Your task to perform on an android device: Open Maps and search for coffee Image 0: 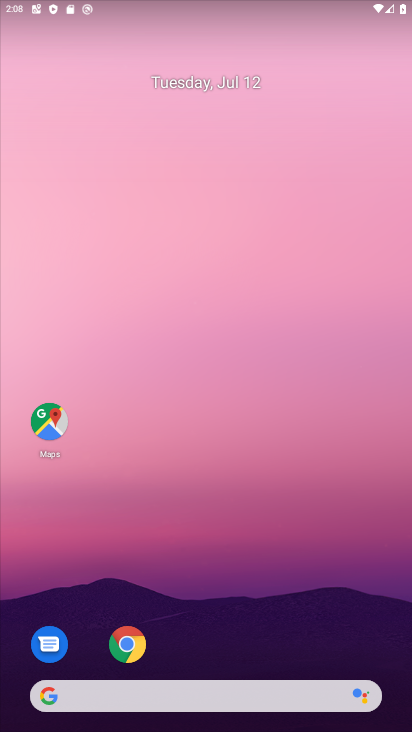
Step 0: click (171, 398)
Your task to perform on an android device: Open Maps and search for coffee Image 1: 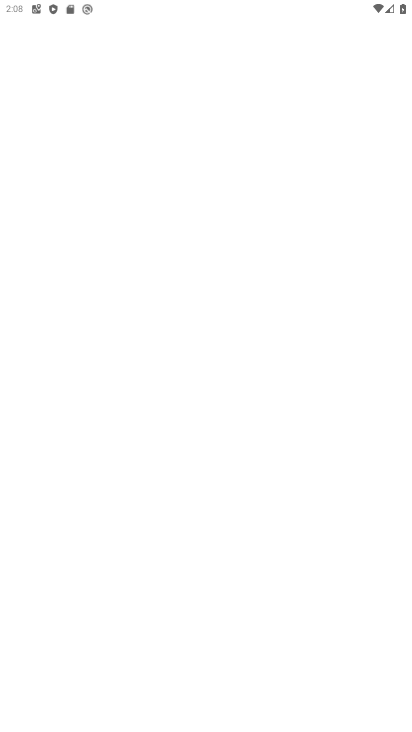
Step 1: press home button
Your task to perform on an android device: Open Maps and search for coffee Image 2: 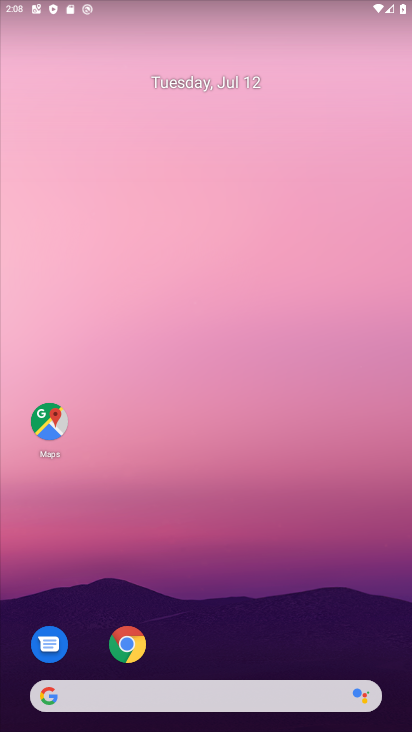
Step 2: click (51, 412)
Your task to perform on an android device: Open Maps and search for coffee Image 3: 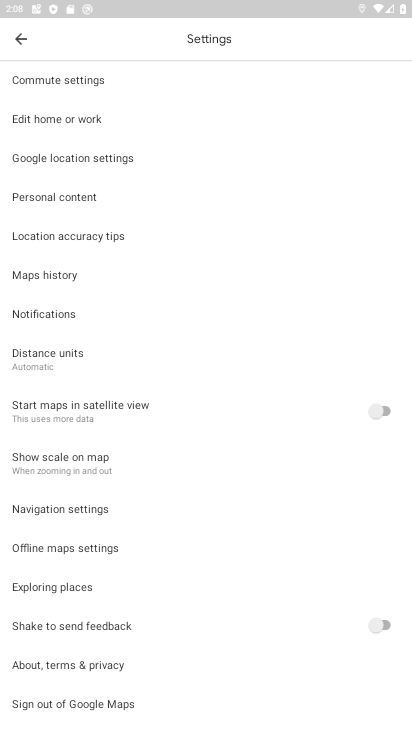
Step 3: click (19, 35)
Your task to perform on an android device: Open Maps and search for coffee Image 4: 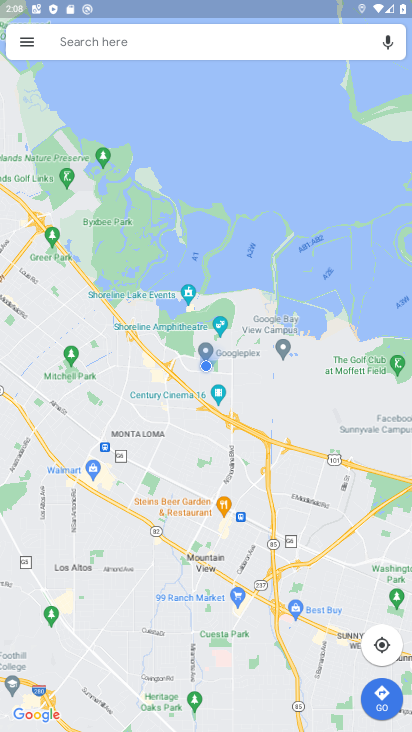
Step 4: click (112, 48)
Your task to perform on an android device: Open Maps and search for coffee Image 5: 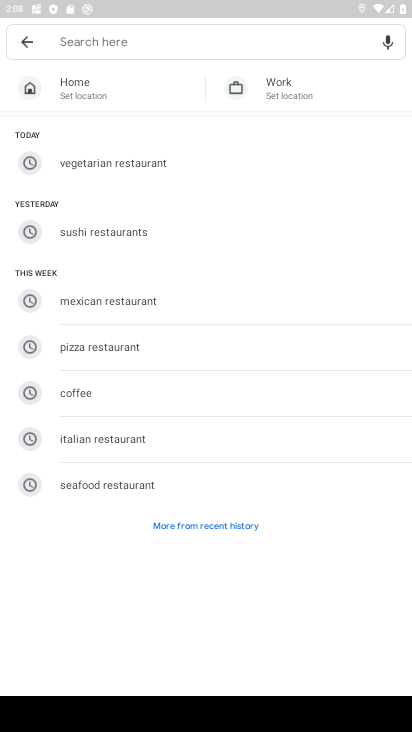
Step 5: click (60, 401)
Your task to perform on an android device: Open Maps and search for coffee Image 6: 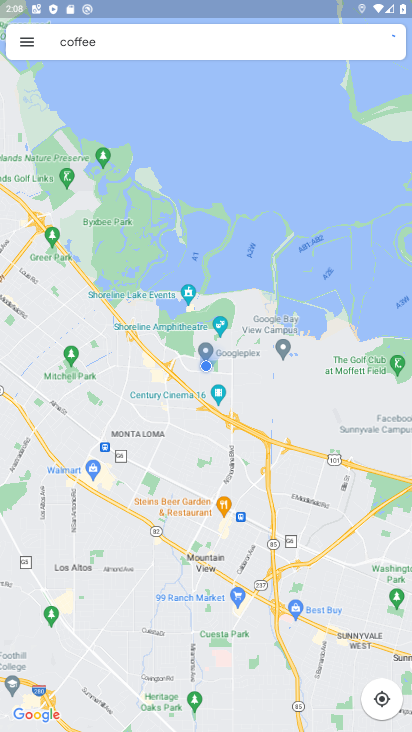
Step 6: task complete